Your task to perform on an android device: Open calendar and show me the first week of next month Image 0: 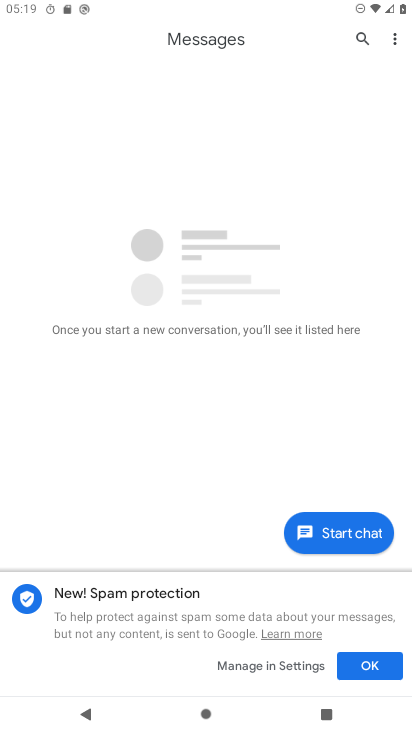
Step 0: press home button
Your task to perform on an android device: Open calendar and show me the first week of next month Image 1: 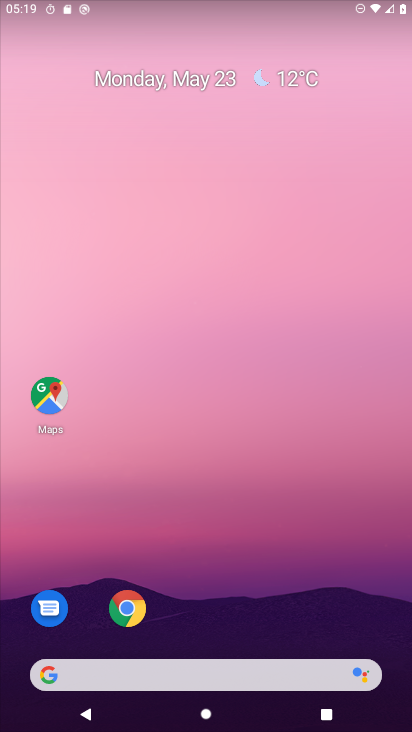
Step 1: click (183, 75)
Your task to perform on an android device: Open calendar and show me the first week of next month Image 2: 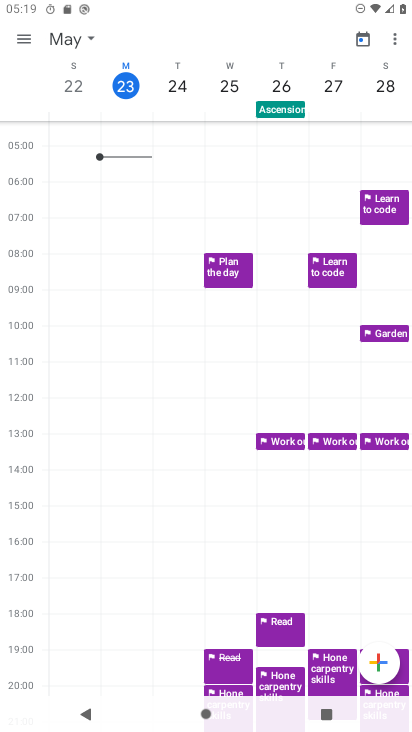
Step 2: click (82, 32)
Your task to perform on an android device: Open calendar and show me the first week of next month Image 3: 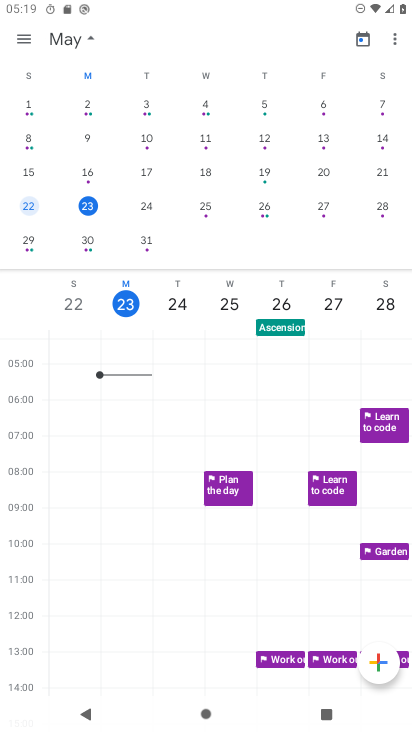
Step 3: drag from (375, 179) to (6, 232)
Your task to perform on an android device: Open calendar and show me the first week of next month Image 4: 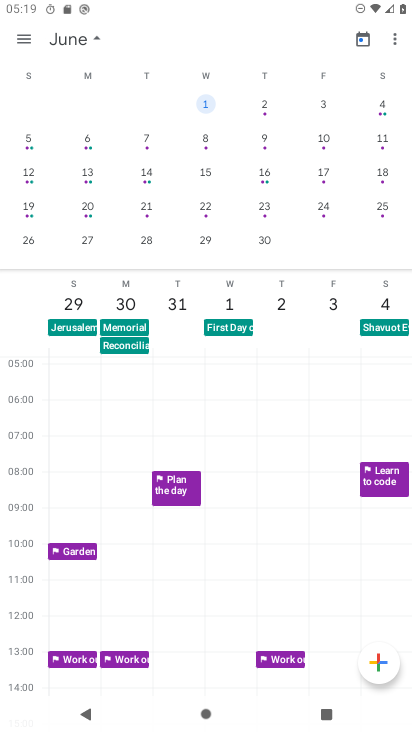
Step 4: click (196, 102)
Your task to perform on an android device: Open calendar and show me the first week of next month Image 5: 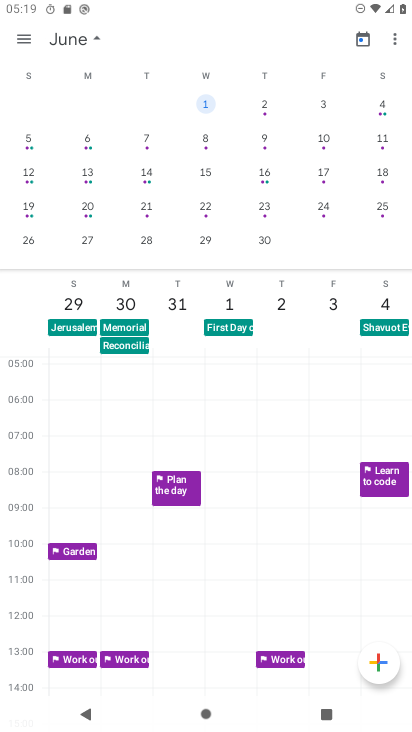
Step 5: task complete